Your task to perform on an android device: open a bookmark in the chrome app Image 0: 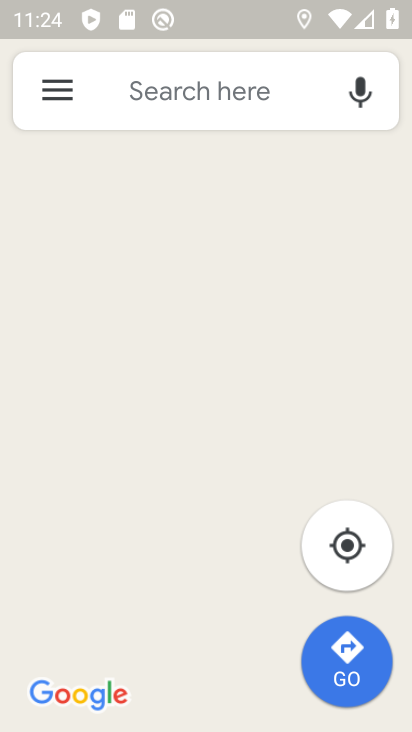
Step 0: press home button
Your task to perform on an android device: open a bookmark in the chrome app Image 1: 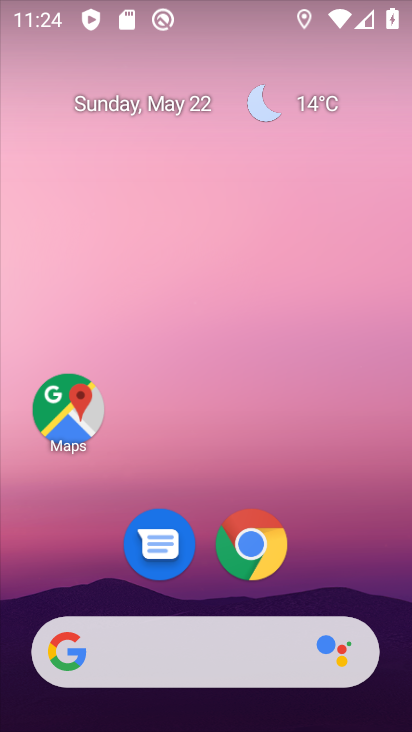
Step 1: click (253, 547)
Your task to perform on an android device: open a bookmark in the chrome app Image 2: 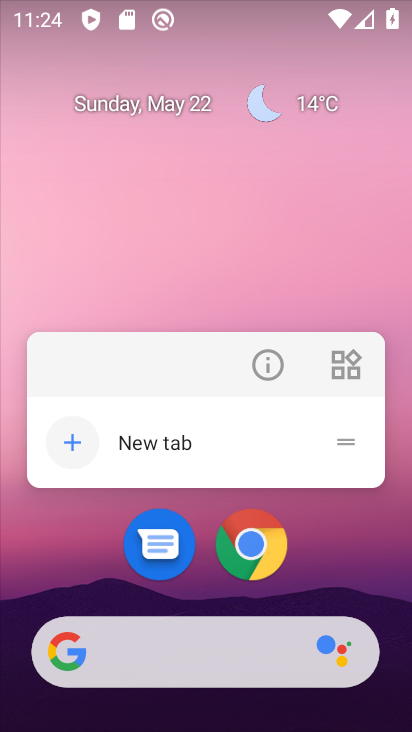
Step 2: click (258, 543)
Your task to perform on an android device: open a bookmark in the chrome app Image 3: 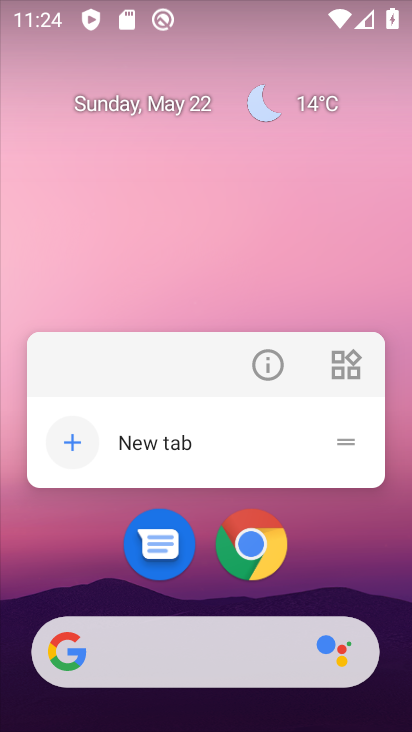
Step 3: click (256, 547)
Your task to perform on an android device: open a bookmark in the chrome app Image 4: 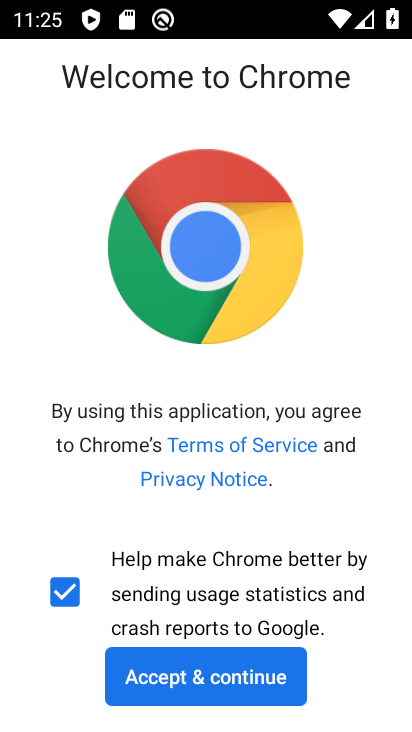
Step 4: click (223, 679)
Your task to perform on an android device: open a bookmark in the chrome app Image 5: 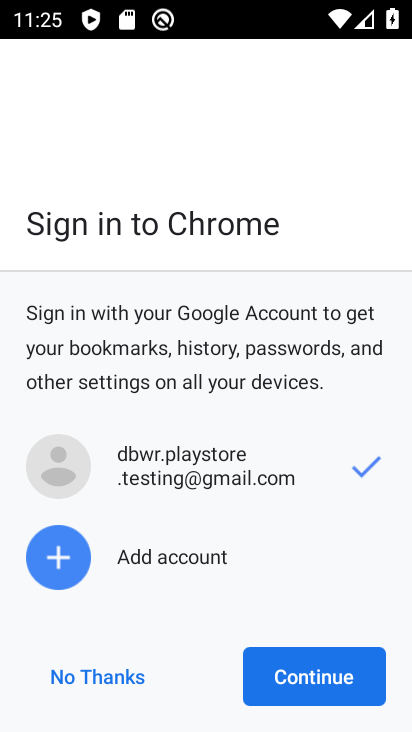
Step 5: click (308, 681)
Your task to perform on an android device: open a bookmark in the chrome app Image 6: 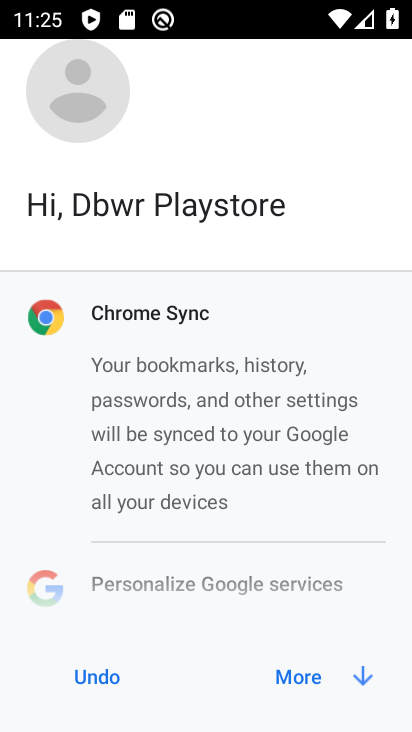
Step 6: click (305, 682)
Your task to perform on an android device: open a bookmark in the chrome app Image 7: 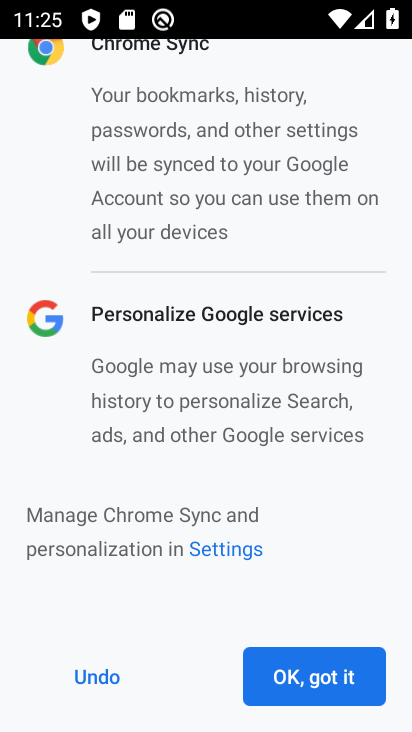
Step 7: click (362, 662)
Your task to perform on an android device: open a bookmark in the chrome app Image 8: 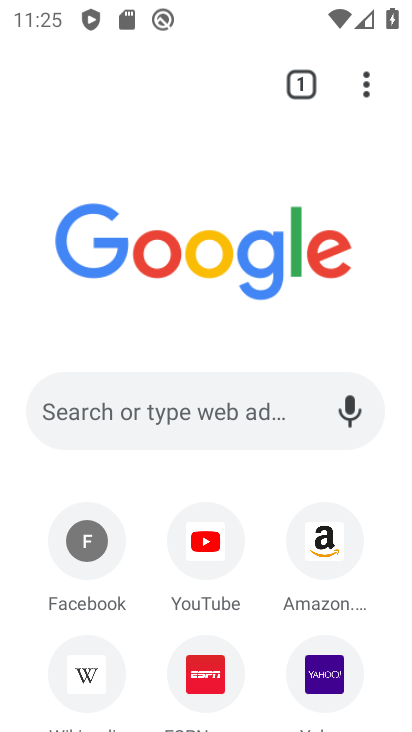
Step 8: click (368, 96)
Your task to perform on an android device: open a bookmark in the chrome app Image 9: 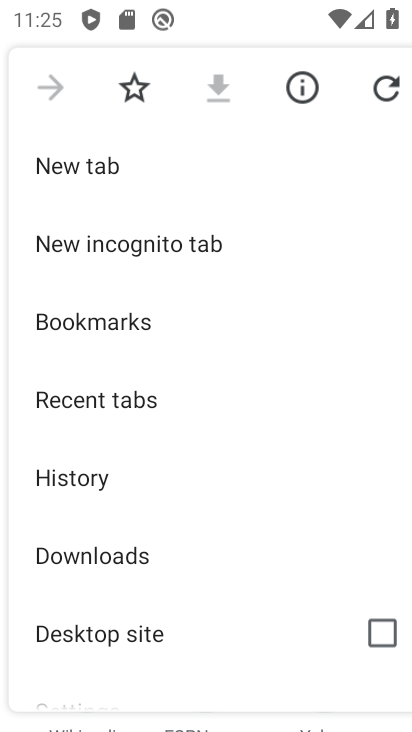
Step 9: click (109, 335)
Your task to perform on an android device: open a bookmark in the chrome app Image 10: 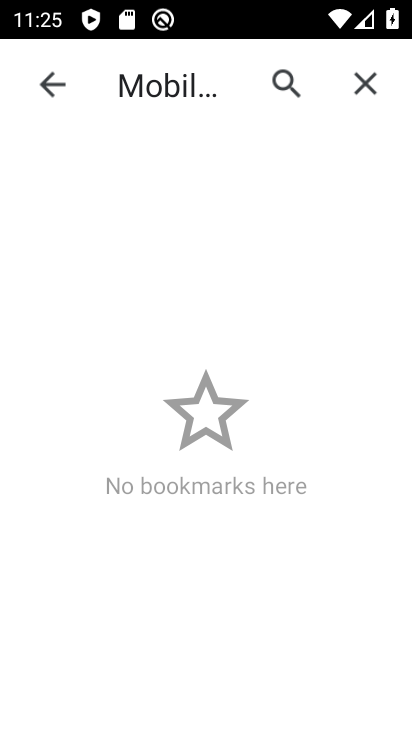
Step 10: task complete